Your task to perform on an android device: turn off javascript in the chrome app Image 0: 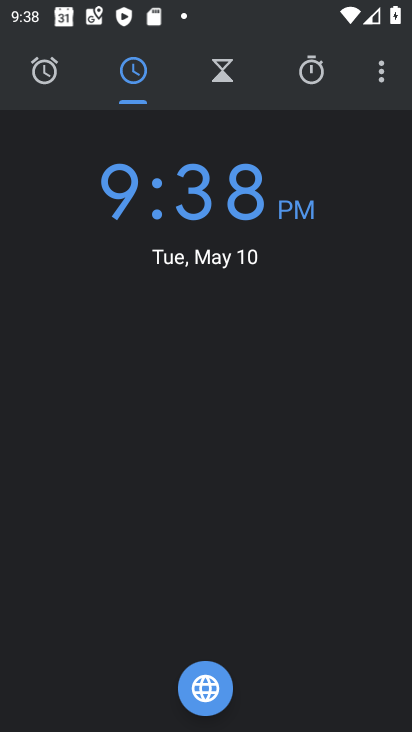
Step 0: press home button
Your task to perform on an android device: turn off javascript in the chrome app Image 1: 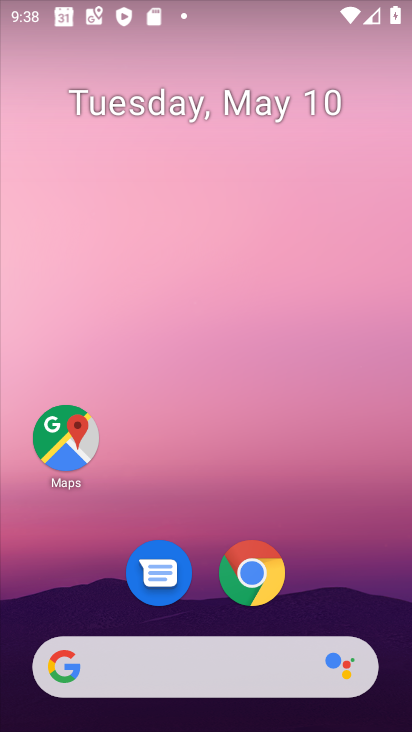
Step 1: click (258, 569)
Your task to perform on an android device: turn off javascript in the chrome app Image 2: 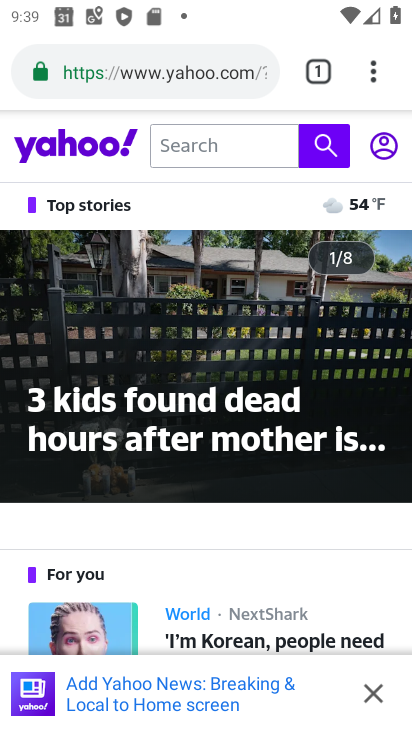
Step 2: click (374, 77)
Your task to perform on an android device: turn off javascript in the chrome app Image 3: 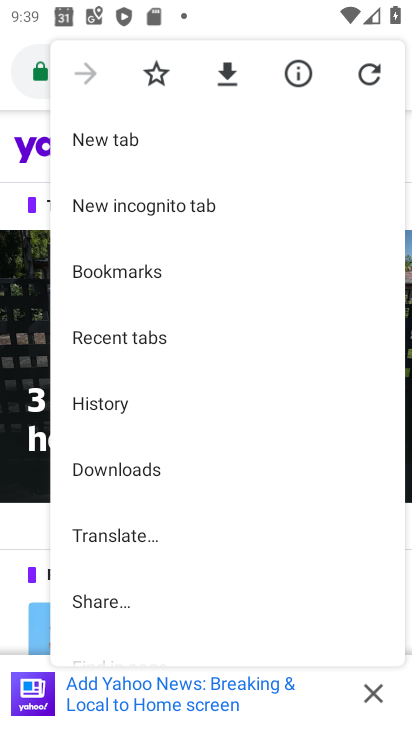
Step 3: drag from (184, 509) to (147, 232)
Your task to perform on an android device: turn off javascript in the chrome app Image 4: 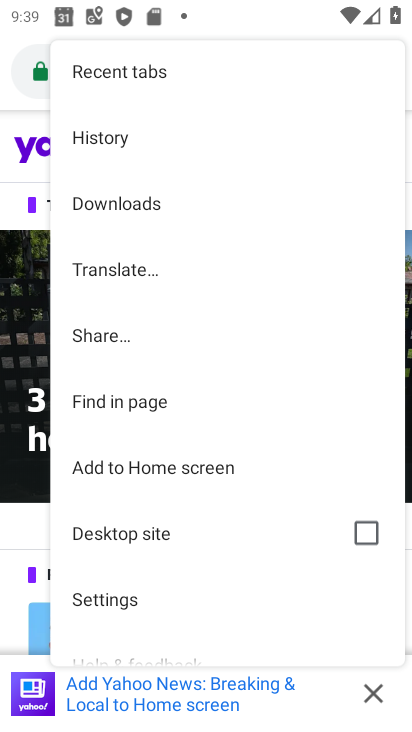
Step 4: click (99, 598)
Your task to perform on an android device: turn off javascript in the chrome app Image 5: 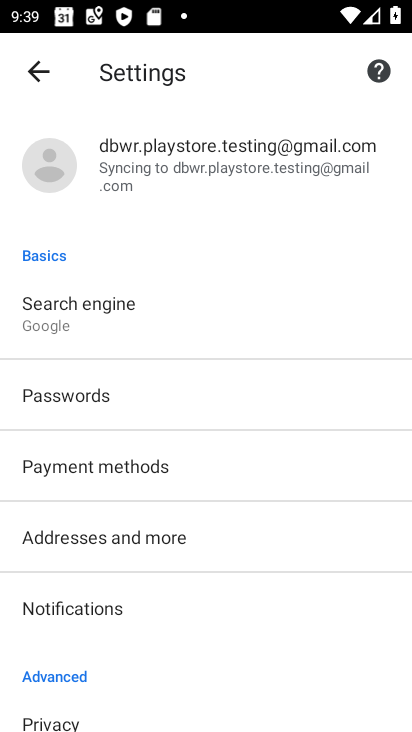
Step 5: drag from (229, 537) to (168, 281)
Your task to perform on an android device: turn off javascript in the chrome app Image 6: 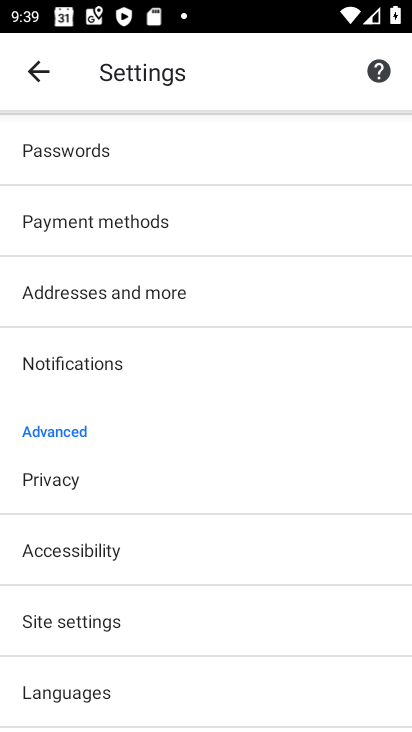
Step 6: drag from (151, 607) to (131, 413)
Your task to perform on an android device: turn off javascript in the chrome app Image 7: 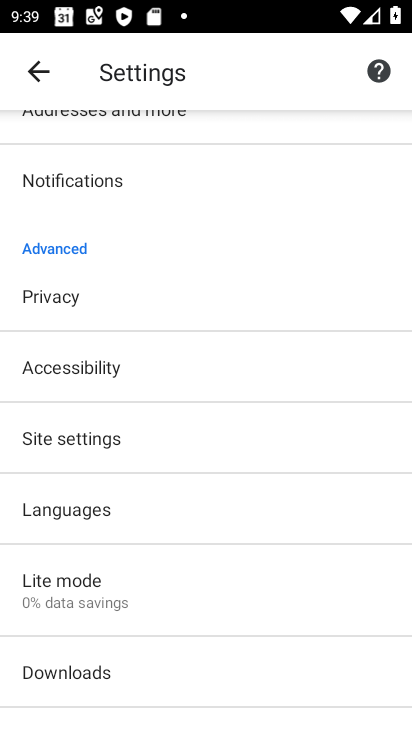
Step 7: click (80, 437)
Your task to perform on an android device: turn off javascript in the chrome app Image 8: 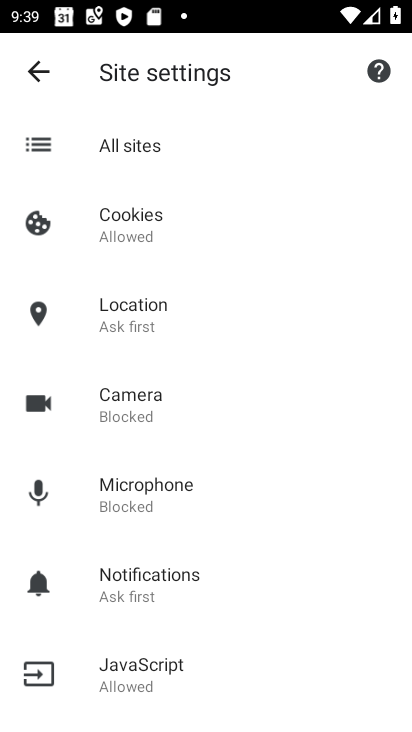
Step 8: click (138, 664)
Your task to perform on an android device: turn off javascript in the chrome app Image 9: 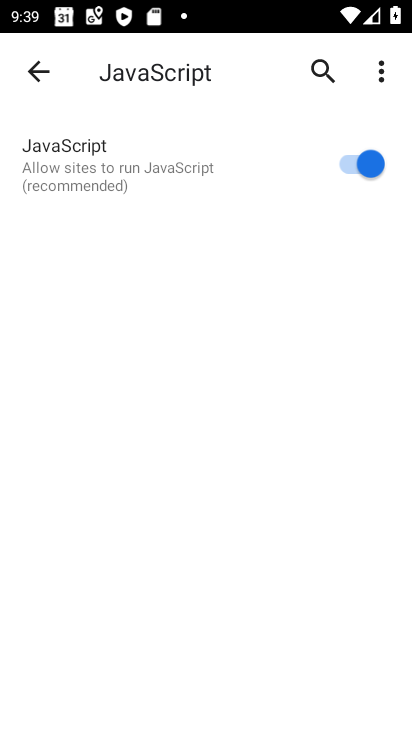
Step 9: click (373, 159)
Your task to perform on an android device: turn off javascript in the chrome app Image 10: 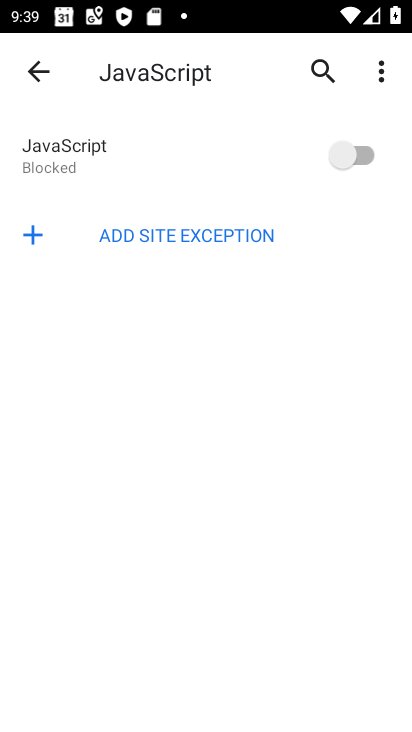
Step 10: task complete